Your task to perform on an android device: Open the Play Movies app and select the watchlist tab. Image 0: 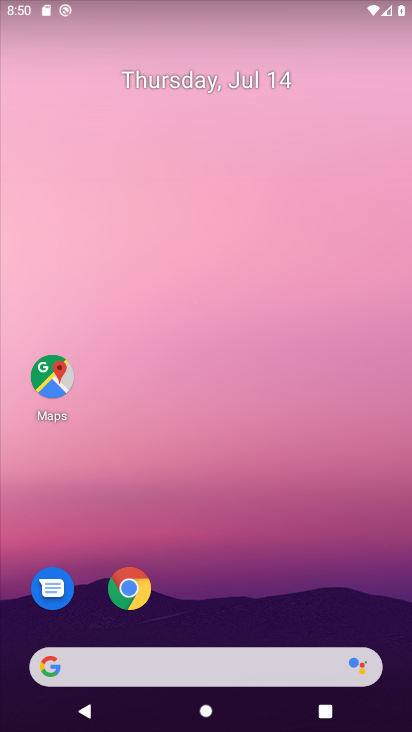
Step 0: drag from (317, 602) to (165, 65)
Your task to perform on an android device: Open the Play Movies app and select the watchlist tab. Image 1: 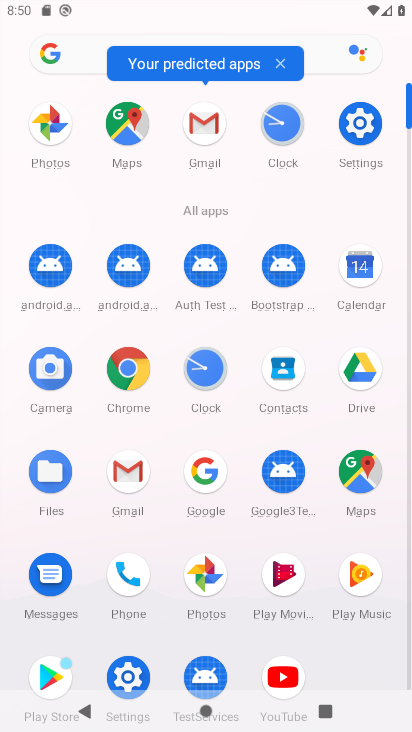
Step 1: click (271, 570)
Your task to perform on an android device: Open the Play Movies app and select the watchlist tab. Image 2: 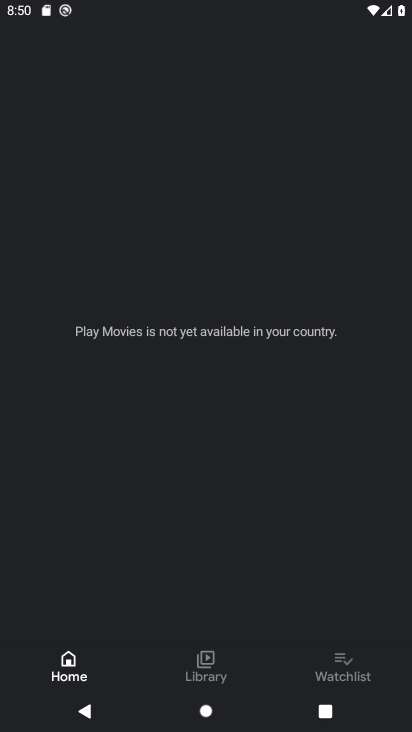
Step 2: click (348, 667)
Your task to perform on an android device: Open the Play Movies app and select the watchlist tab. Image 3: 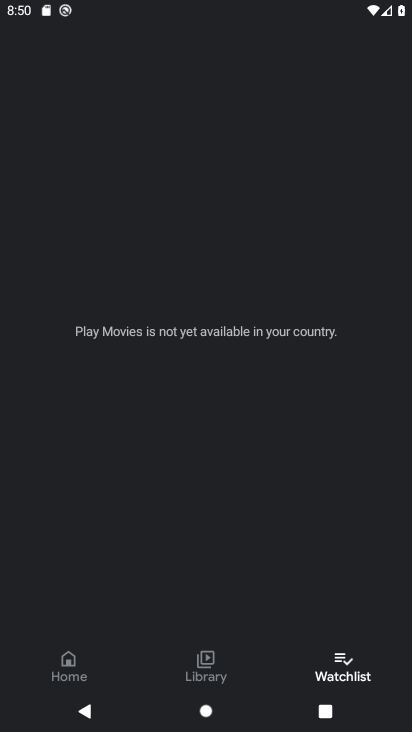
Step 3: task complete